Your task to perform on an android device: Clear the shopping cart on newegg. Search for razer nari on newegg, select the first entry, add it to the cart, then select checkout. Image 0: 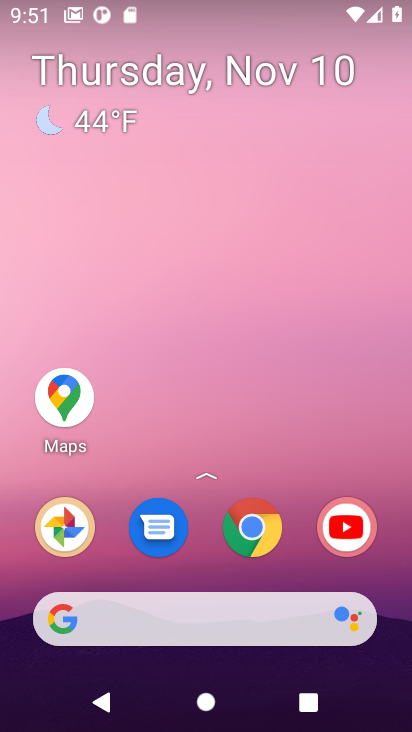
Step 0: drag from (111, 582) to (173, 102)
Your task to perform on an android device: Clear the shopping cart on newegg. Search for razer nari on newegg, select the first entry, add it to the cart, then select checkout. Image 1: 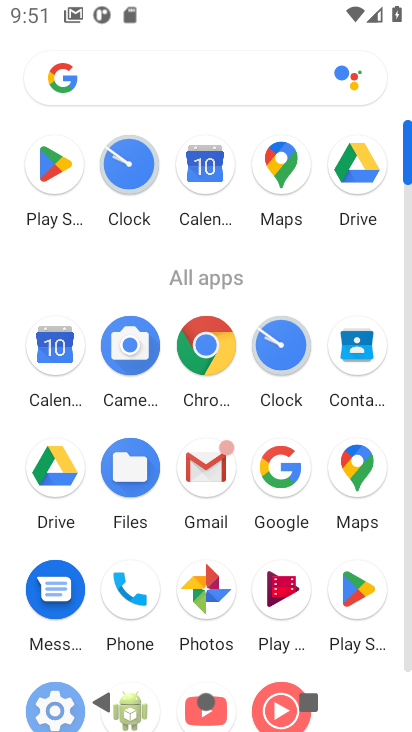
Step 1: click (202, 349)
Your task to perform on an android device: Clear the shopping cart on newegg. Search for razer nari on newegg, select the first entry, add it to the cart, then select checkout. Image 2: 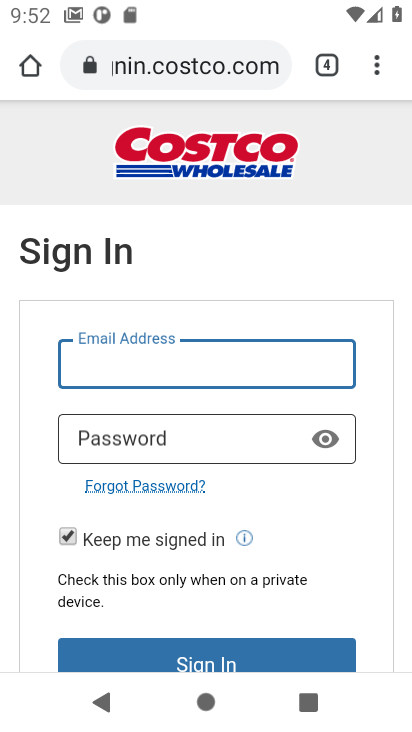
Step 2: click (169, 76)
Your task to perform on an android device: Clear the shopping cart on newegg. Search for razer nari on newegg, select the first entry, add it to the cart, then select checkout. Image 3: 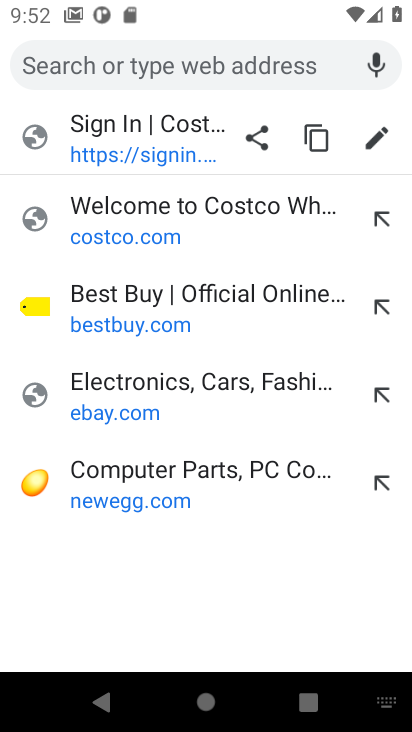
Step 3: type "newegg"
Your task to perform on an android device: Clear the shopping cart on newegg. Search for razer nari on newegg, select the first entry, add it to the cart, then select checkout. Image 4: 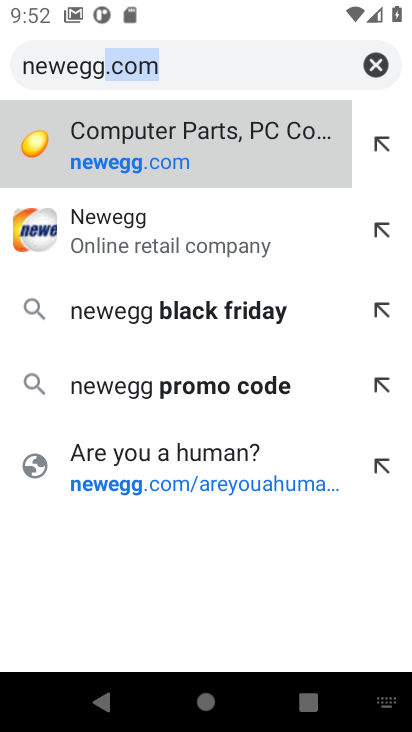
Step 4: press enter
Your task to perform on an android device: Clear the shopping cart on newegg. Search for razer nari on newegg, select the first entry, add it to the cart, then select checkout. Image 5: 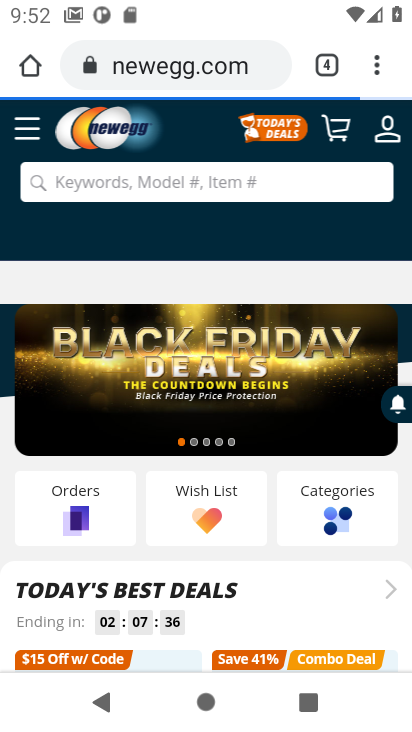
Step 5: click (119, 184)
Your task to perform on an android device: Clear the shopping cart on newegg. Search for razer nari on newegg, select the first entry, add it to the cart, then select checkout. Image 6: 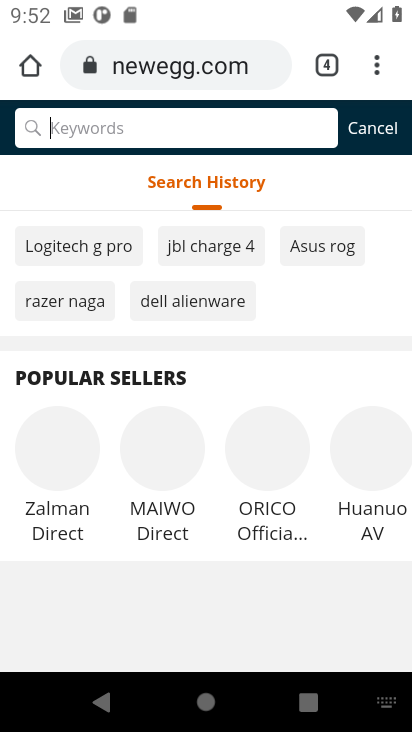
Step 6: press back button
Your task to perform on an android device: Clear the shopping cart on newegg. Search for razer nari on newegg, select the first entry, add it to the cart, then select checkout. Image 7: 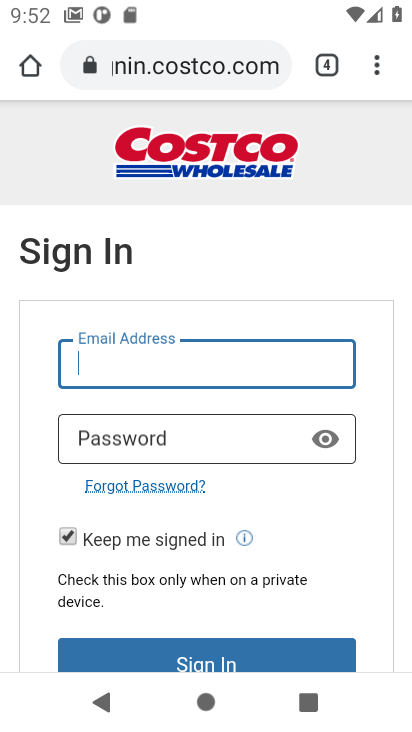
Step 7: press back button
Your task to perform on an android device: Clear the shopping cart on newegg. Search for razer nari on newegg, select the first entry, add it to the cart, then select checkout. Image 8: 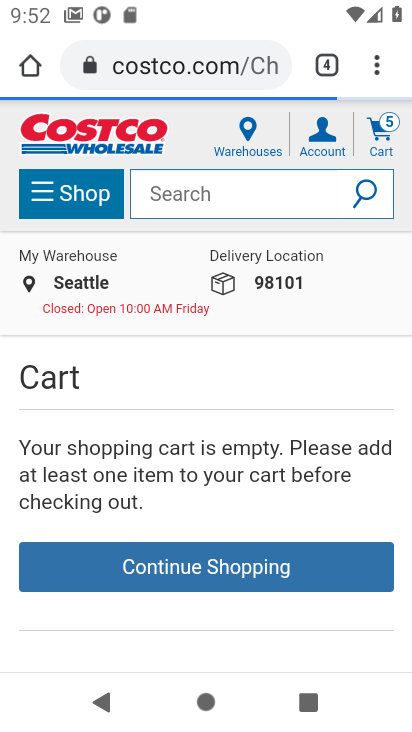
Step 8: click (379, 126)
Your task to perform on an android device: Clear the shopping cart on newegg. Search for razer nari on newegg, select the first entry, add it to the cart, then select checkout. Image 9: 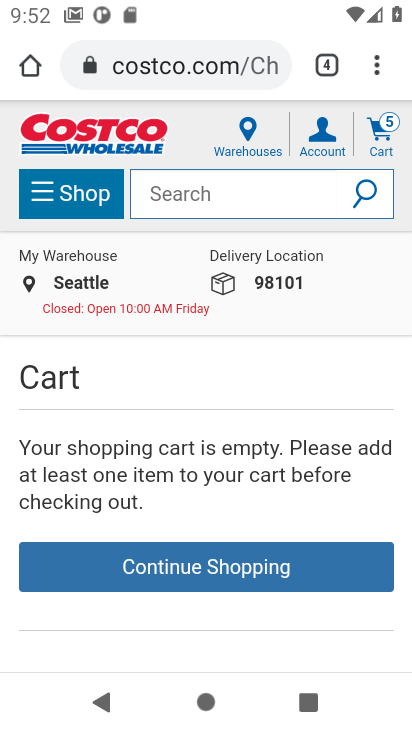
Step 9: click (374, 124)
Your task to perform on an android device: Clear the shopping cart on newegg. Search for razer nari on newegg, select the first entry, add it to the cart, then select checkout. Image 10: 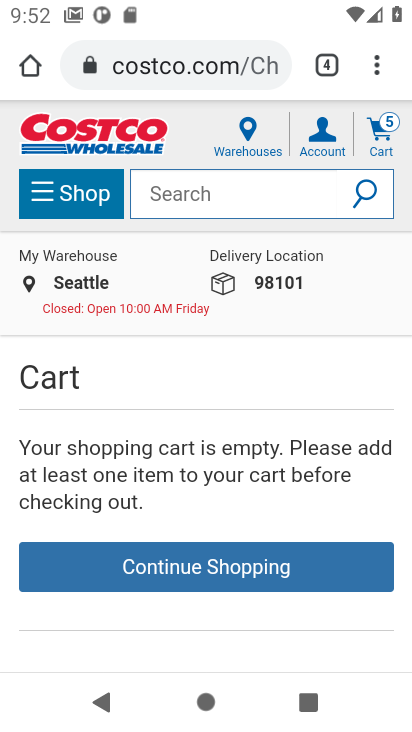
Step 10: drag from (214, 442) to (304, 201)
Your task to perform on an android device: Clear the shopping cart on newegg. Search for razer nari on newegg, select the first entry, add it to the cart, then select checkout. Image 11: 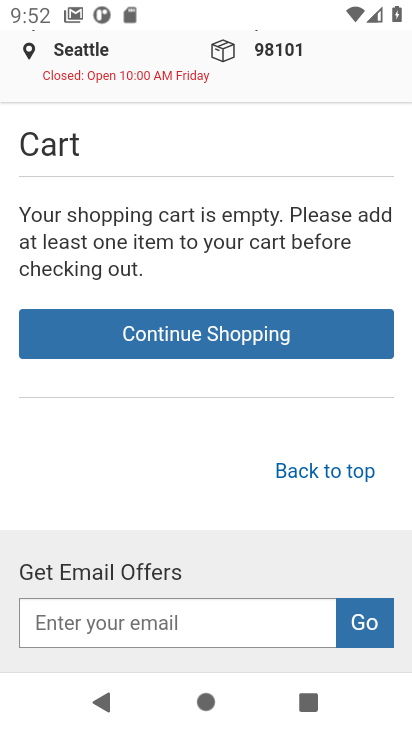
Step 11: drag from (237, 506) to (319, 173)
Your task to perform on an android device: Clear the shopping cart on newegg. Search for razer nari on newegg, select the first entry, add it to the cart, then select checkout. Image 12: 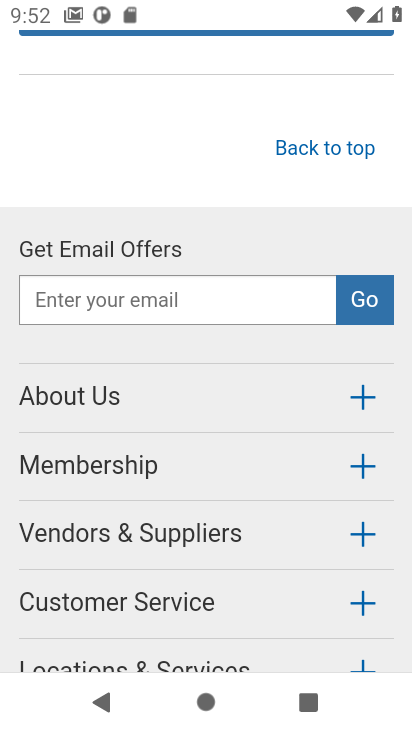
Step 12: drag from (224, 438) to (254, 98)
Your task to perform on an android device: Clear the shopping cart on newegg. Search for razer nari on newegg, select the first entry, add it to the cart, then select checkout. Image 13: 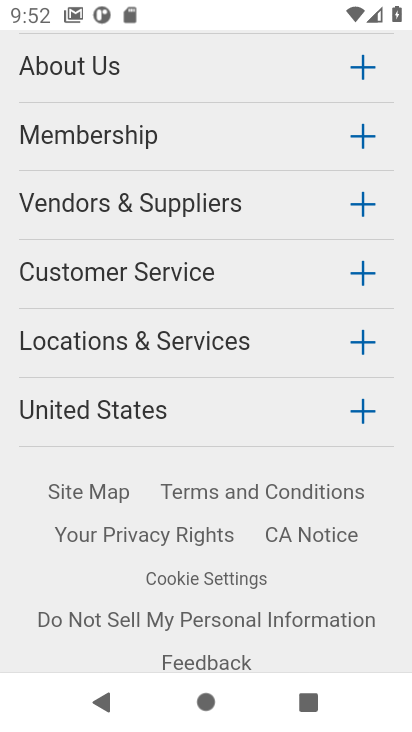
Step 13: drag from (135, 560) to (211, 194)
Your task to perform on an android device: Clear the shopping cart on newegg. Search for razer nari on newegg, select the first entry, add it to the cart, then select checkout. Image 14: 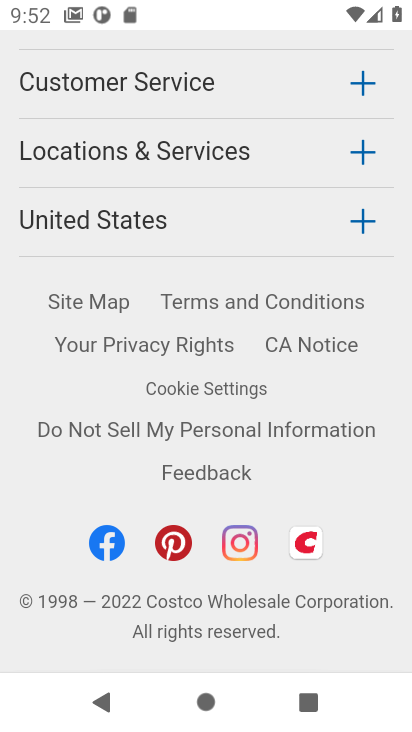
Step 14: drag from (214, 184) to (181, 552)
Your task to perform on an android device: Clear the shopping cart on newegg. Search for razer nari on newegg, select the first entry, add it to the cart, then select checkout. Image 15: 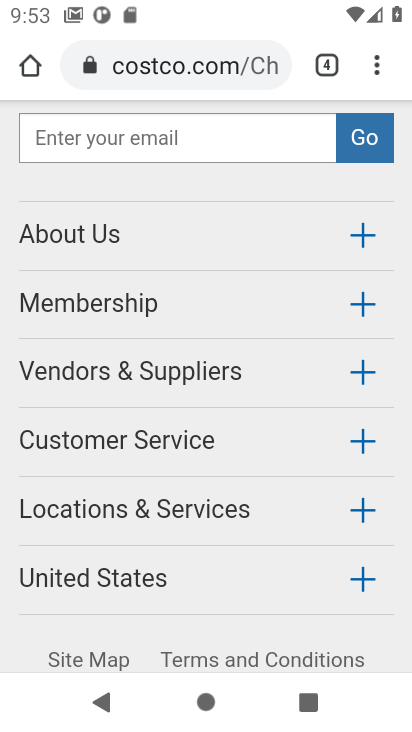
Step 15: drag from (204, 259) to (180, 593)
Your task to perform on an android device: Clear the shopping cart on newegg. Search for razer nari on newegg, select the first entry, add it to the cart, then select checkout. Image 16: 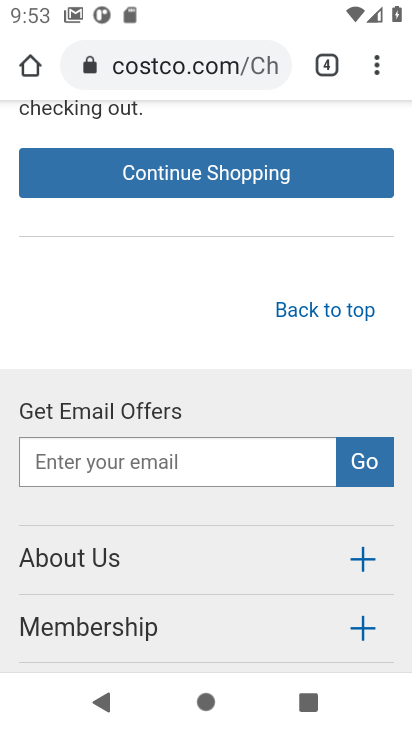
Step 16: drag from (208, 264) to (167, 573)
Your task to perform on an android device: Clear the shopping cart on newegg. Search for razer nari on newegg, select the first entry, add it to the cart, then select checkout. Image 17: 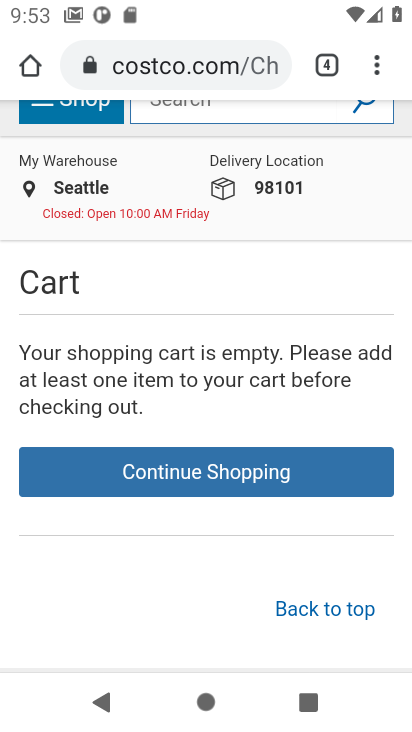
Step 17: drag from (186, 196) to (139, 473)
Your task to perform on an android device: Clear the shopping cart on newegg. Search for razer nari on newegg, select the first entry, add it to the cart, then select checkout. Image 18: 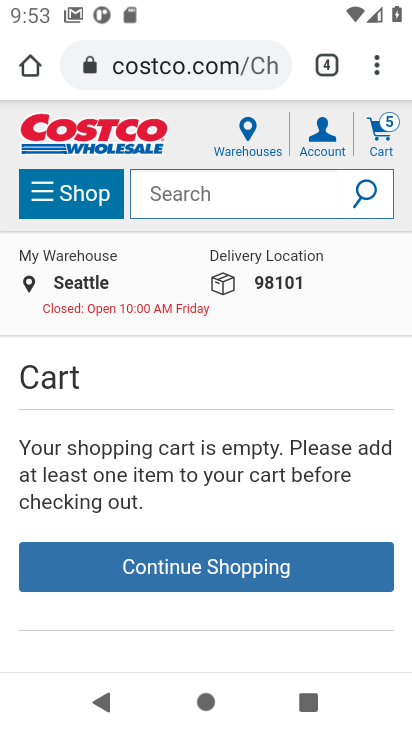
Step 18: drag from (177, 329) to (171, 468)
Your task to perform on an android device: Clear the shopping cart on newegg. Search for razer nari on newegg, select the first entry, add it to the cart, then select checkout. Image 19: 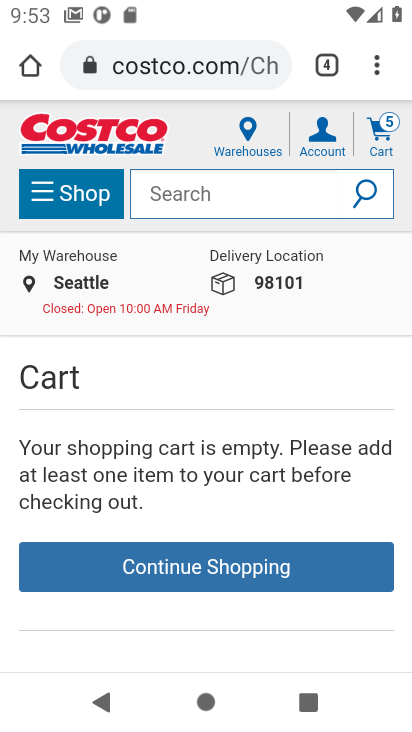
Step 19: click (371, 126)
Your task to perform on an android device: Clear the shopping cart on newegg. Search for razer nari on newegg, select the first entry, add it to the cart, then select checkout. Image 20: 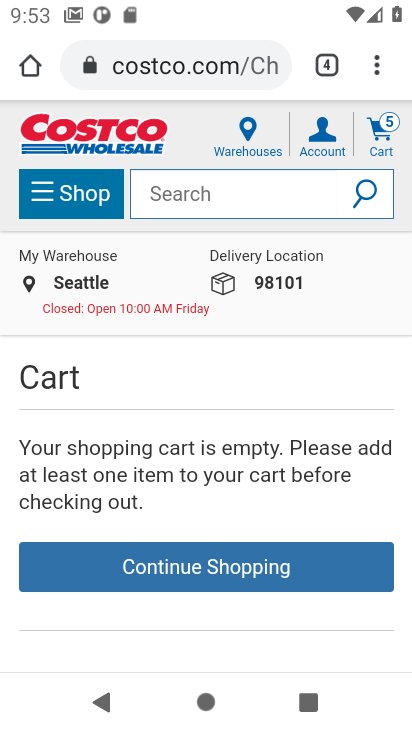
Step 20: click (380, 122)
Your task to perform on an android device: Clear the shopping cart on newegg. Search for razer nari on newegg, select the first entry, add it to the cart, then select checkout. Image 21: 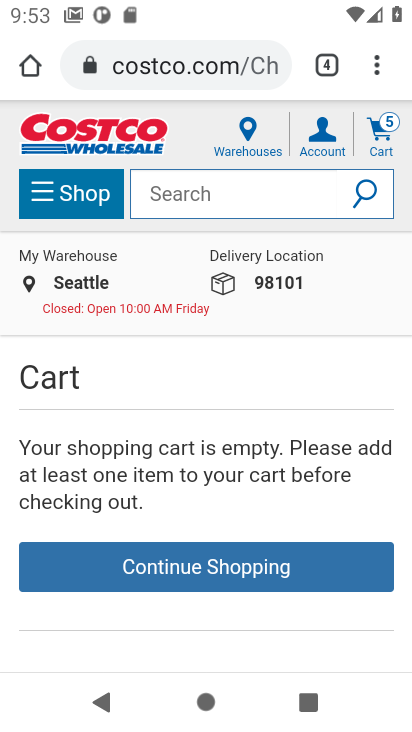
Step 21: click (382, 123)
Your task to perform on an android device: Clear the shopping cart on newegg. Search for razer nari on newegg, select the first entry, add it to the cart, then select checkout. Image 22: 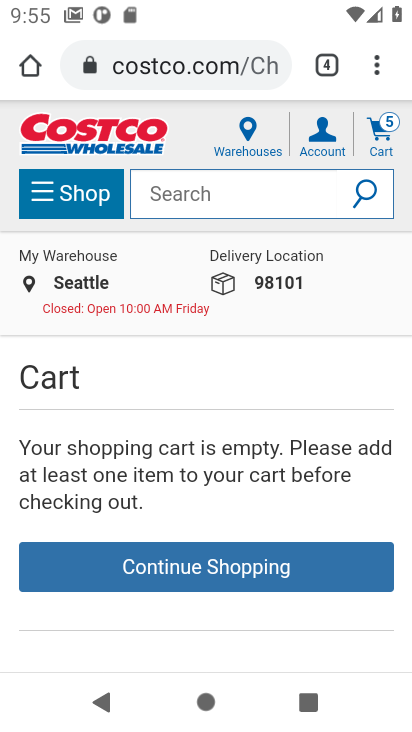
Step 22: click (380, 128)
Your task to perform on an android device: Clear the shopping cart on newegg. Search for razer nari on newegg, select the first entry, add it to the cart, then select checkout. Image 23: 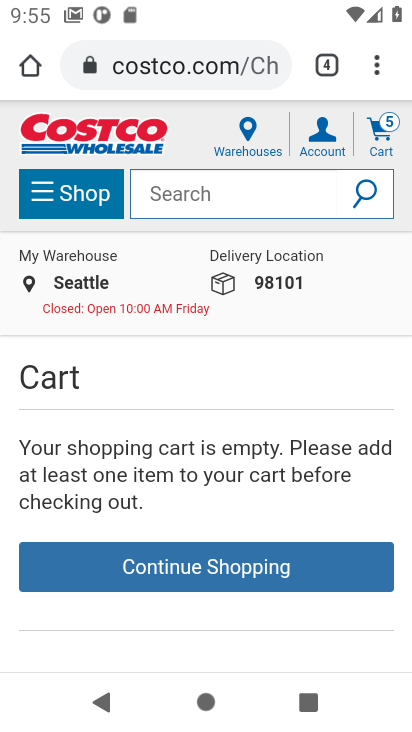
Step 23: drag from (258, 469) to (239, 147)
Your task to perform on an android device: Clear the shopping cart on newegg. Search for razer nari on newegg, select the first entry, add it to the cart, then select checkout. Image 24: 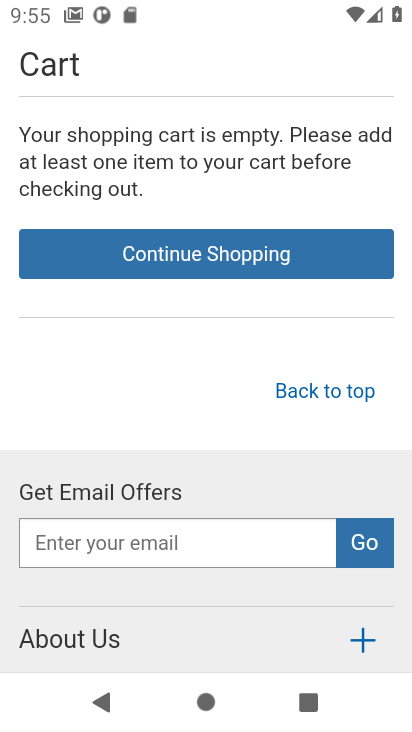
Step 24: drag from (257, 500) to (300, 184)
Your task to perform on an android device: Clear the shopping cart on newegg. Search for razer nari on newegg, select the first entry, add it to the cart, then select checkout. Image 25: 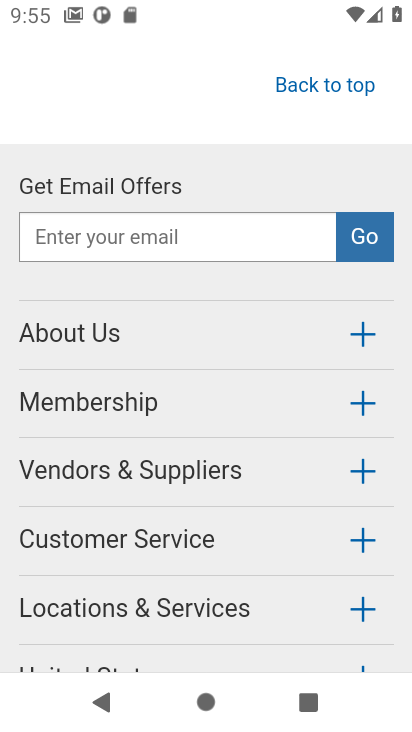
Step 25: drag from (258, 451) to (251, 126)
Your task to perform on an android device: Clear the shopping cart on newegg. Search for razer nari on newegg, select the first entry, add it to the cart, then select checkout. Image 26: 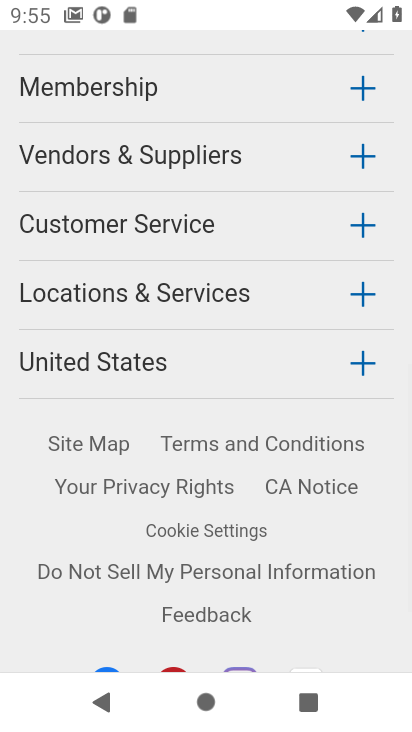
Step 26: drag from (251, 126) to (237, 525)
Your task to perform on an android device: Clear the shopping cart on newegg. Search for razer nari on newegg, select the first entry, add it to the cart, then select checkout. Image 27: 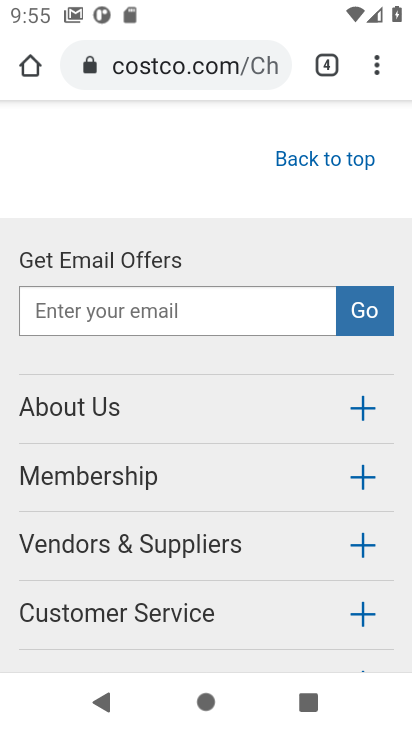
Step 27: drag from (153, 271) to (151, 546)
Your task to perform on an android device: Clear the shopping cart on newegg. Search for razer nari on newegg, select the first entry, add it to the cart, then select checkout. Image 28: 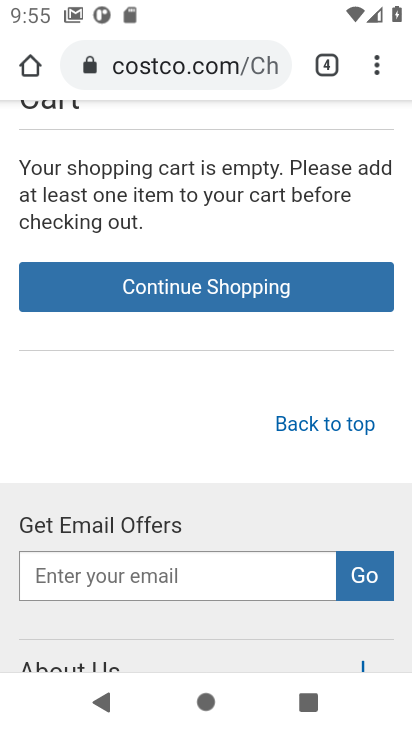
Step 28: drag from (147, 195) to (137, 545)
Your task to perform on an android device: Clear the shopping cart on newegg. Search for razer nari on newegg, select the first entry, add it to the cart, then select checkout. Image 29: 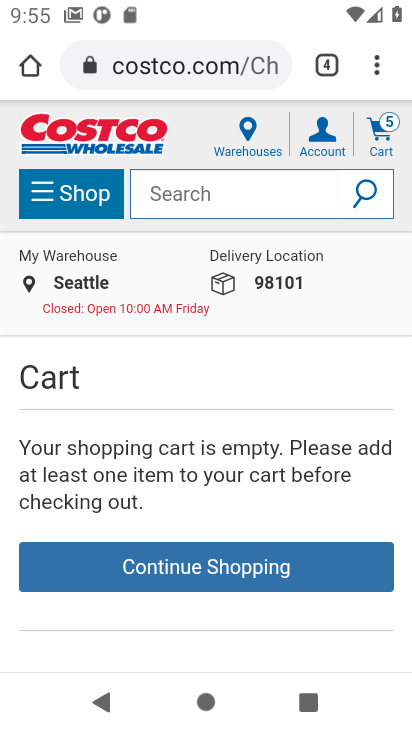
Step 29: drag from (143, 323) to (140, 500)
Your task to perform on an android device: Clear the shopping cart on newegg. Search for razer nari on newegg, select the first entry, add it to the cart, then select checkout. Image 30: 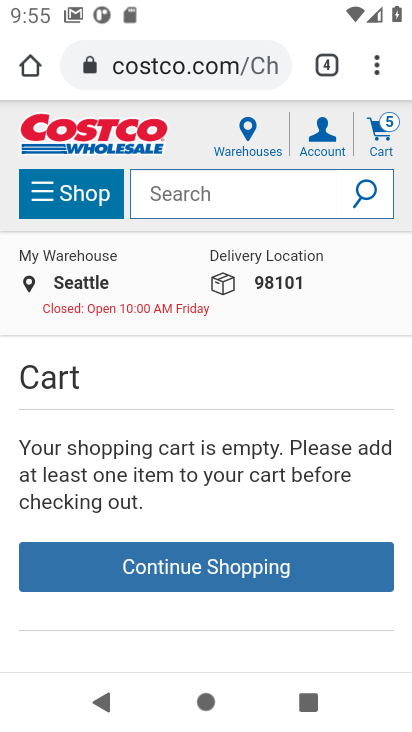
Step 30: click (376, 128)
Your task to perform on an android device: Clear the shopping cart on newegg. Search for razer nari on newegg, select the first entry, add it to the cart, then select checkout. Image 31: 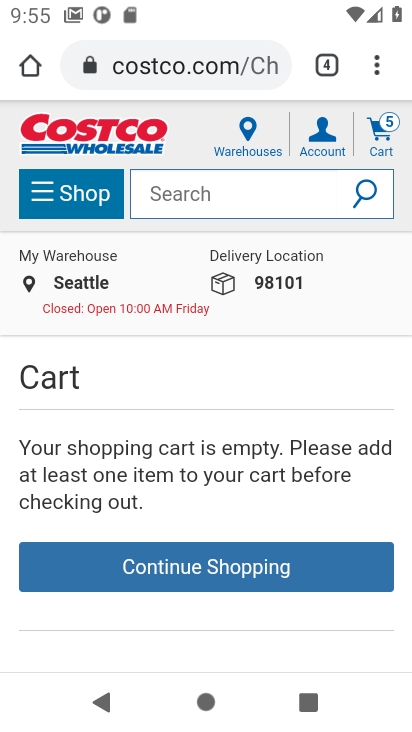
Step 31: click (219, 521)
Your task to perform on an android device: Clear the shopping cart on newegg. Search for razer nari on newegg, select the first entry, add it to the cart, then select checkout. Image 32: 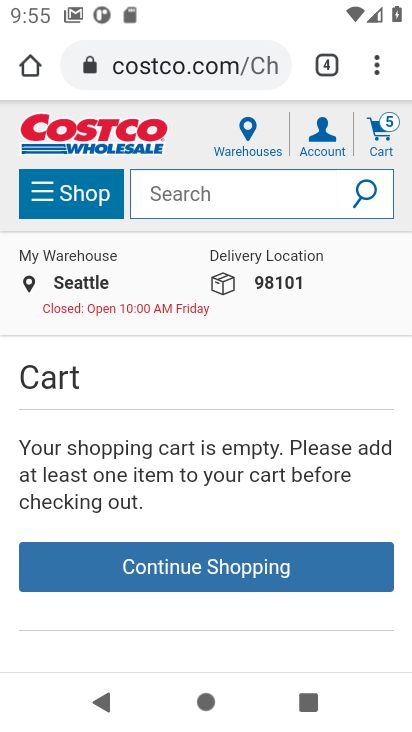
Step 32: click (224, 574)
Your task to perform on an android device: Clear the shopping cart on newegg. Search for razer nari on newegg, select the first entry, add it to the cart, then select checkout. Image 33: 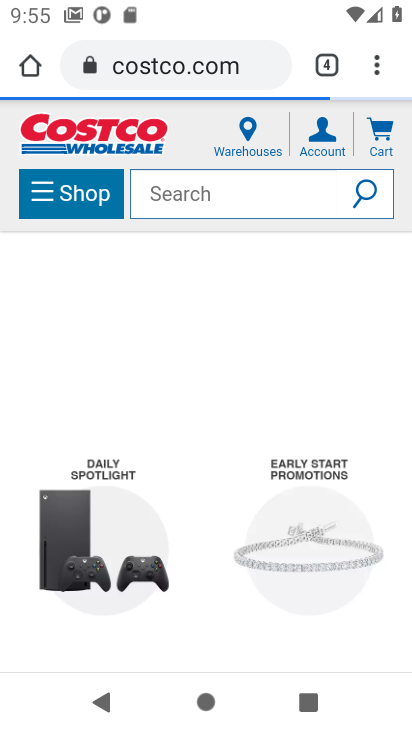
Step 33: task complete